Your task to perform on an android device: Show me popular videos on Youtube Image 0: 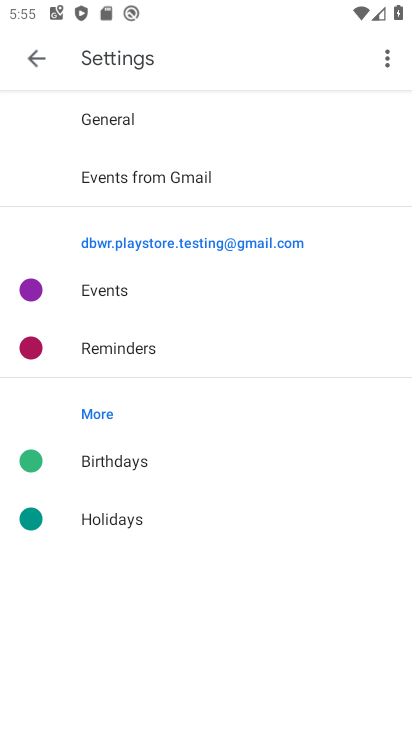
Step 0: press home button
Your task to perform on an android device: Show me popular videos on Youtube Image 1: 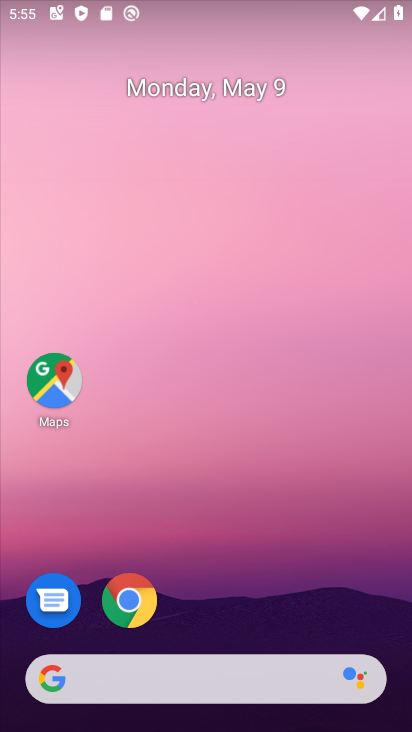
Step 1: drag from (272, 589) to (273, 8)
Your task to perform on an android device: Show me popular videos on Youtube Image 2: 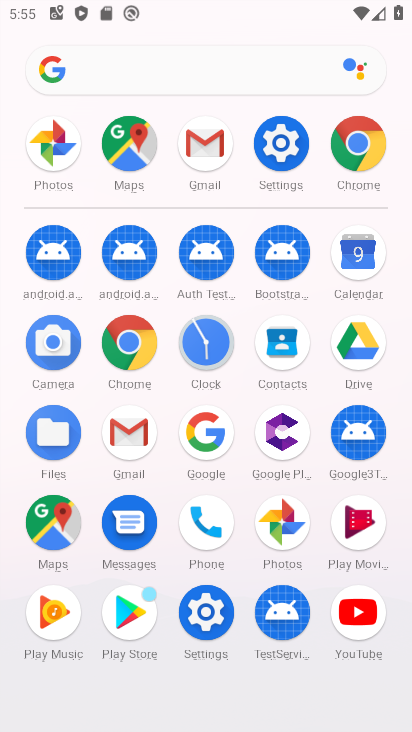
Step 2: click (366, 632)
Your task to perform on an android device: Show me popular videos on Youtube Image 3: 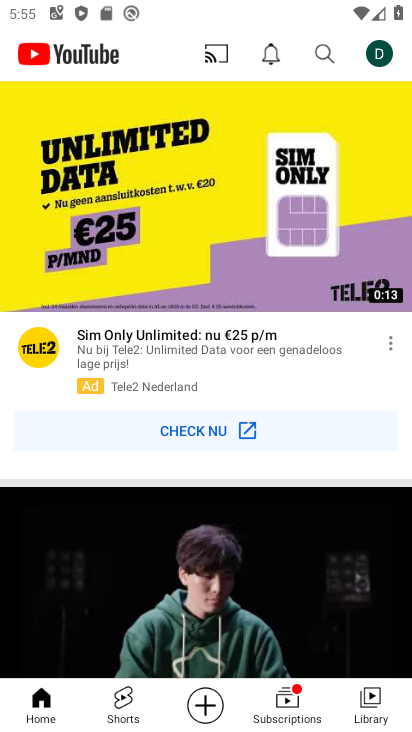
Step 3: drag from (249, 595) to (255, 508)
Your task to perform on an android device: Show me popular videos on Youtube Image 4: 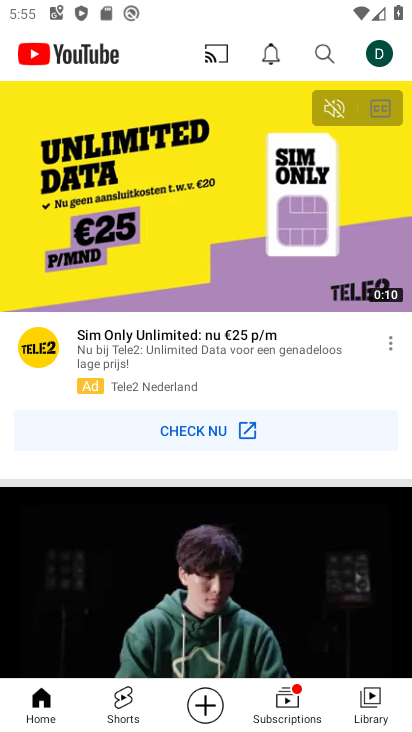
Step 4: drag from (104, 126) to (109, 475)
Your task to perform on an android device: Show me popular videos on Youtube Image 5: 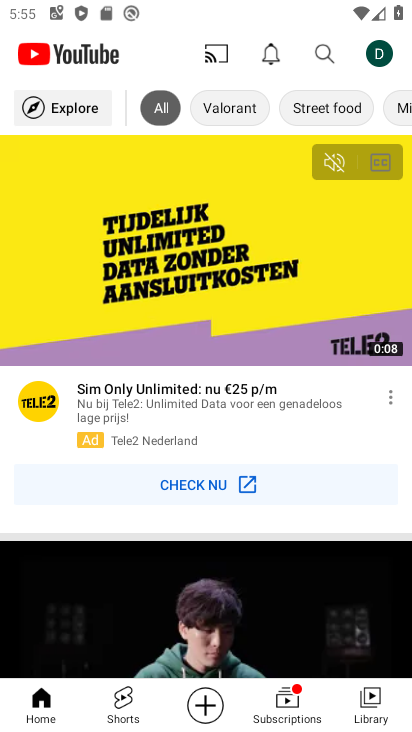
Step 5: click (61, 105)
Your task to perform on an android device: Show me popular videos on Youtube Image 6: 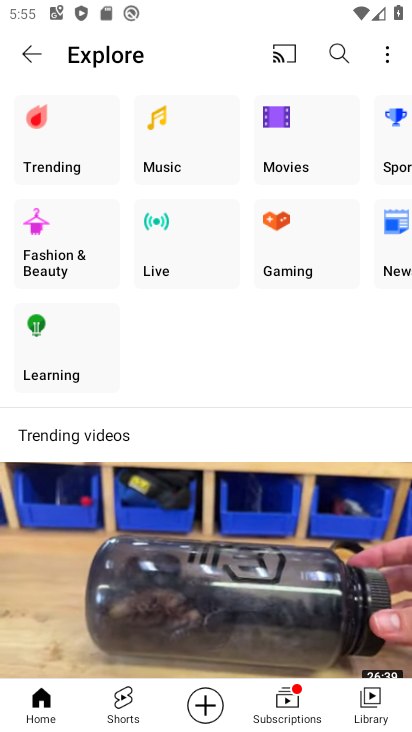
Step 6: click (55, 154)
Your task to perform on an android device: Show me popular videos on Youtube Image 7: 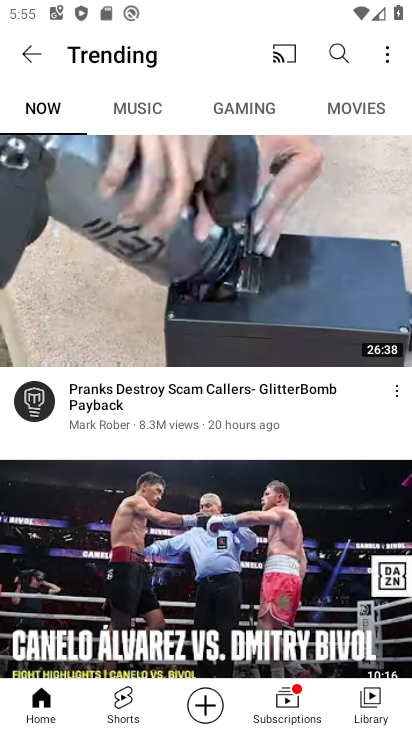
Step 7: task complete